Your task to perform on an android device: check battery use Image 0: 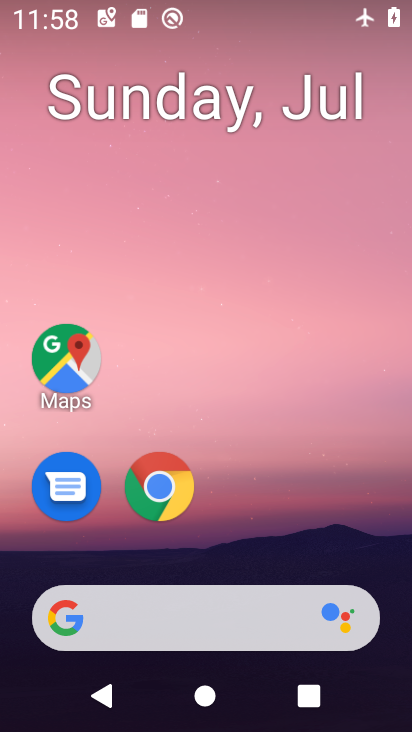
Step 0: drag from (341, 552) to (369, 101)
Your task to perform on an android device: check battery use Image 1: 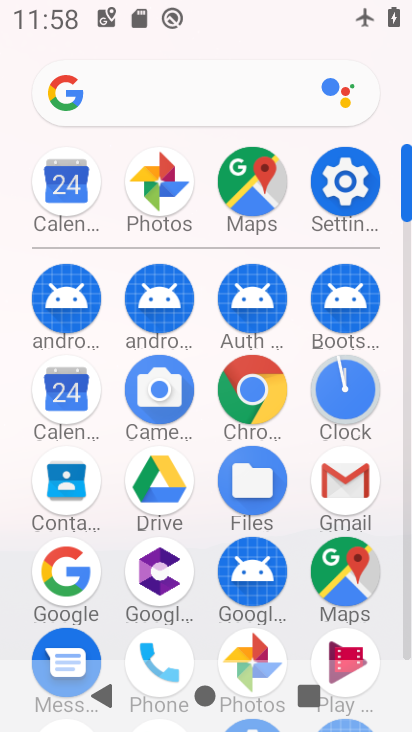
Step 1: click (348, 193)
Your task to perform on an android device: check battery use Image 2: 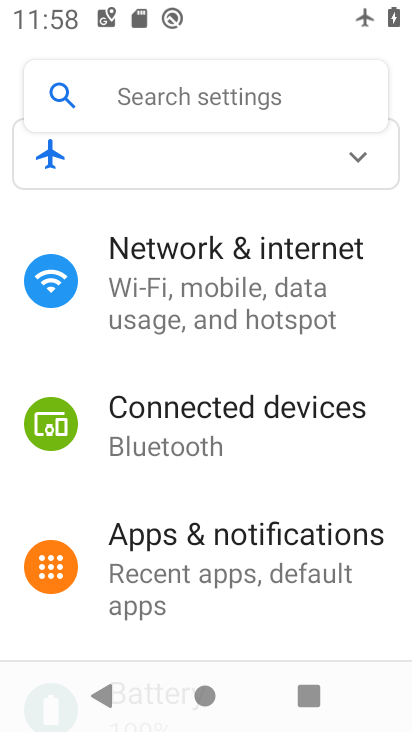
Step 2: drag from (354, 542) to (355, 446)
Your task to perform on an android device: check battery use Image 3: 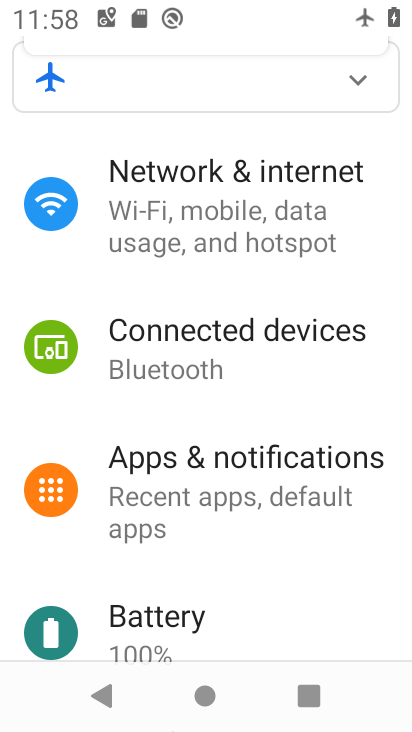
Step 3: drag from (349, 557) to (362, 397)
Your task to perform on an android device: check battery use Image 4: 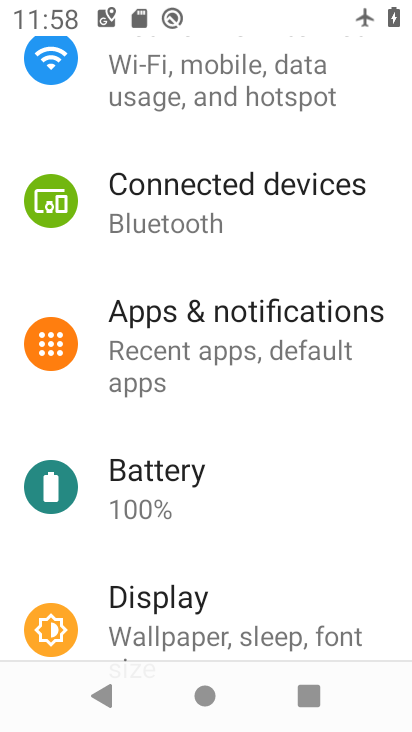
Step 4: drag from (360, 517) to (352, 339)
Your task to perform on an android device: check battery use Image 5: 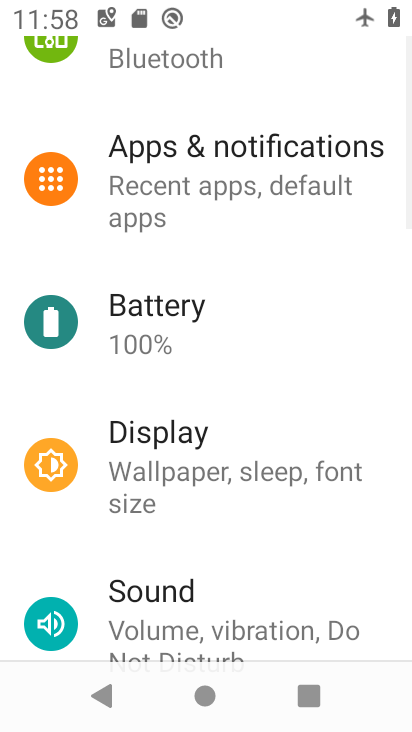
Step 5: drag from (349, 403) to (342, 260)
Your task to perform on an android device: check battery use Image 6: 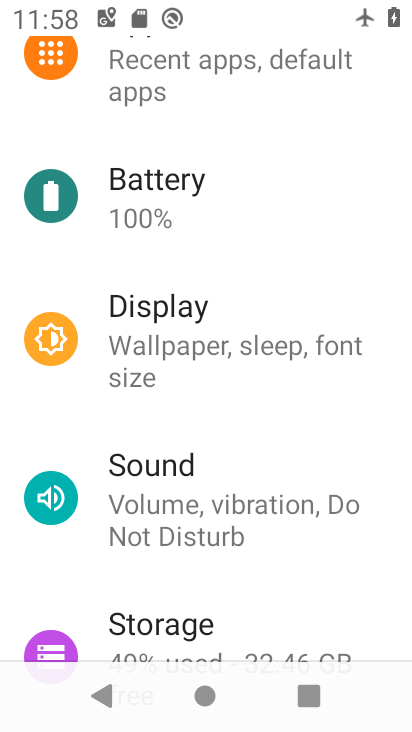
Step 6: drag from (299, 299) to (284, 209)
Your task to perform on an android device: check battery use Image 7: 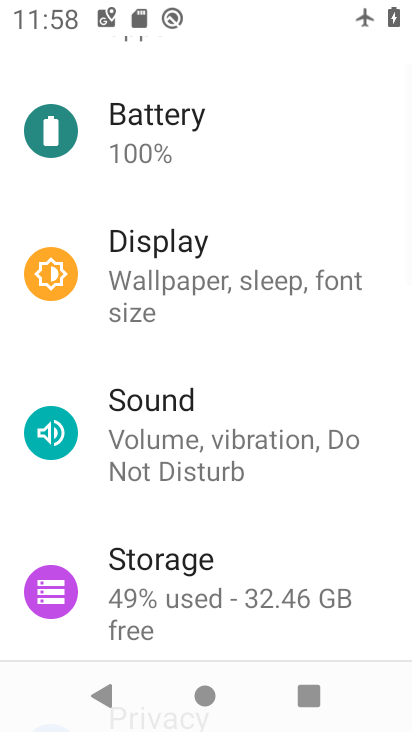
Step 7: click (196, 139)
Your task to perform on an android device: check battery use Image 8: 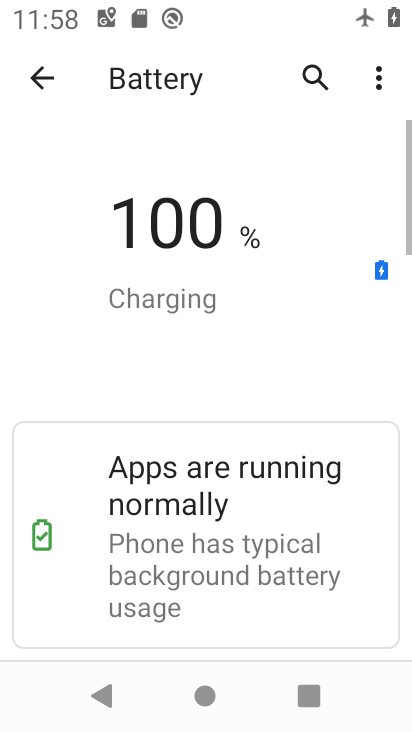
Step 8: drag from (311, 526) to (321, 386)
Your task to perform on an android device: check battery use Image 9: 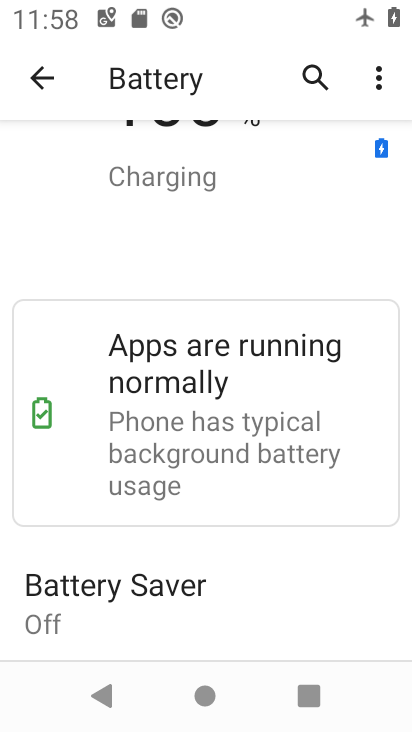
Step 9: drag from (322, 560) to (314, 438)
Your task to perform on an android device: check battery use Image 10: 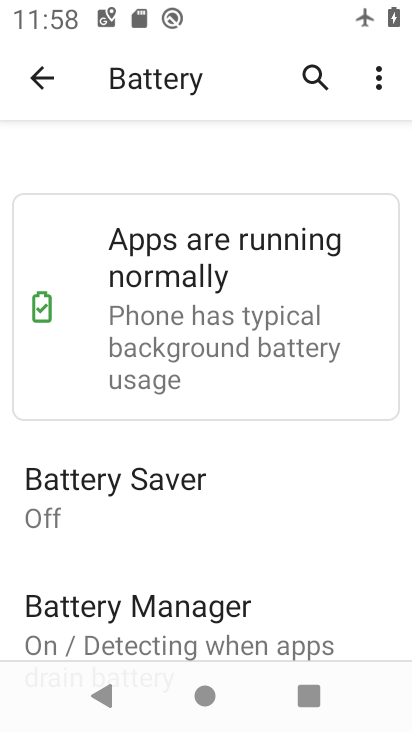
Step 10: drag from (359, 214) to (374, 496)
Your task to perform on an android device: check battery use Image 11: 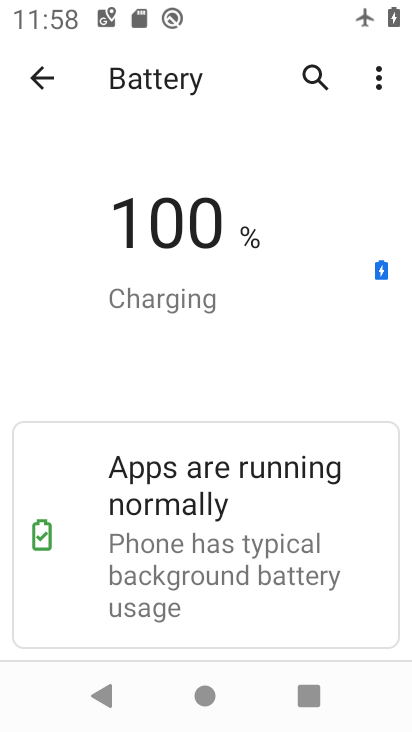
Step 11: click (378, 70)
Your task to perform on an android device: check battery use Image 12: 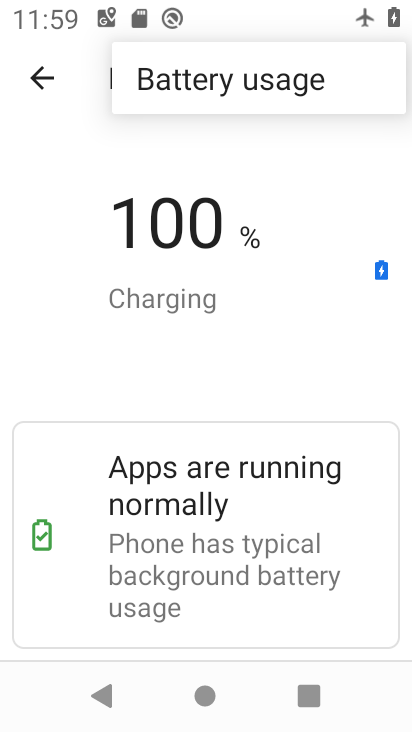
Step 12: click (376, 70)
Your task to perform on an android device: check battery use Image 13: 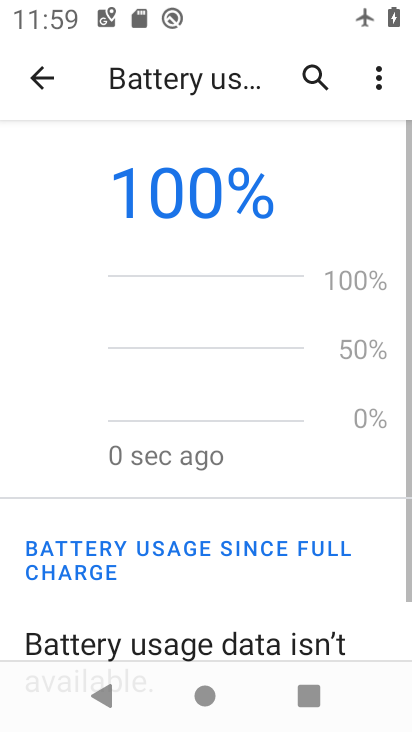
Step 13: task complete